Your task to perform on an android device: turn on bluetooth scan Image 0: 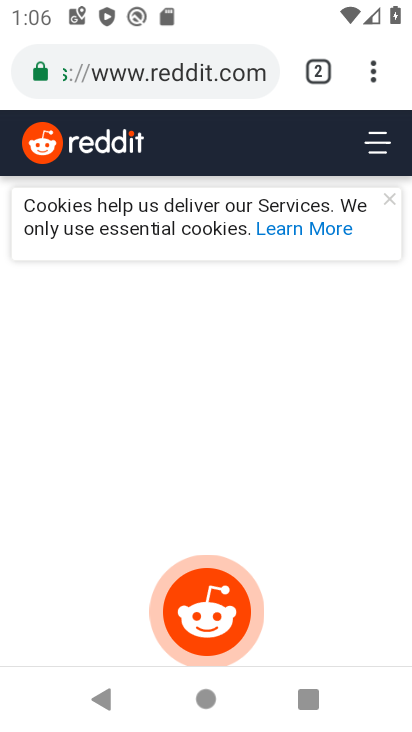
Step 0: press home button
Your task to perform on an android device: turn on bluetooth scan Image 1: 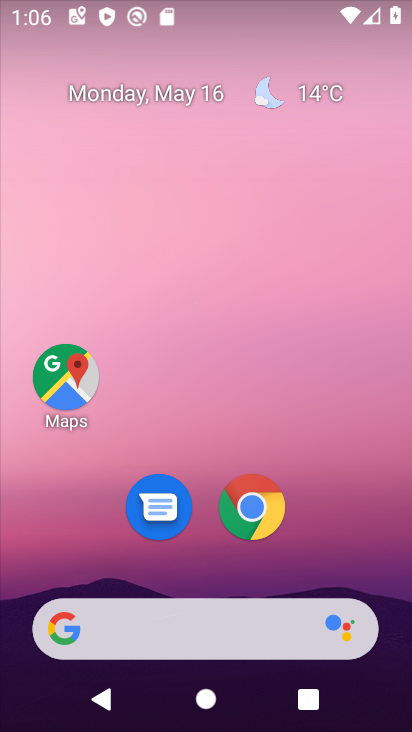
Step 1: drag from (9, 657) to (189, 215)
Your task to perform on an android device: turn on bluetooth scan Image 2: 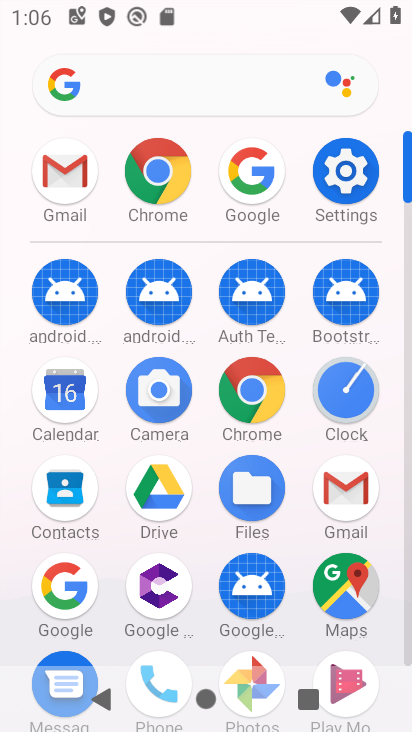
Step 2: click (357, 186)
Your task to perform on an android device: turn on bluetooth scan Image 3: 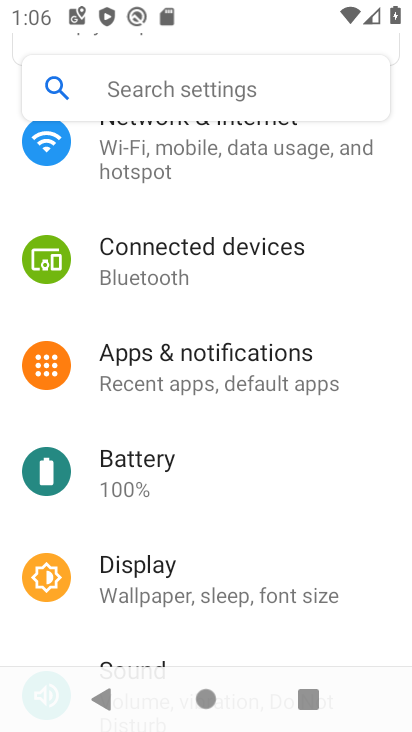
Step 3: drag from (110, 607) to (353, 88)
Your task to perform on an android device: turn on bluetooth scan Image 4: 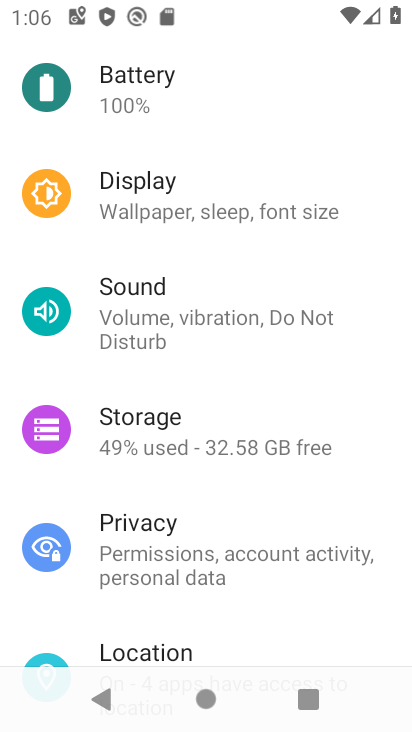
Step 4: drag from (233, 654) to (297, 309)
Your task to perform on an android device: turn on bluetooth scan Image 5: 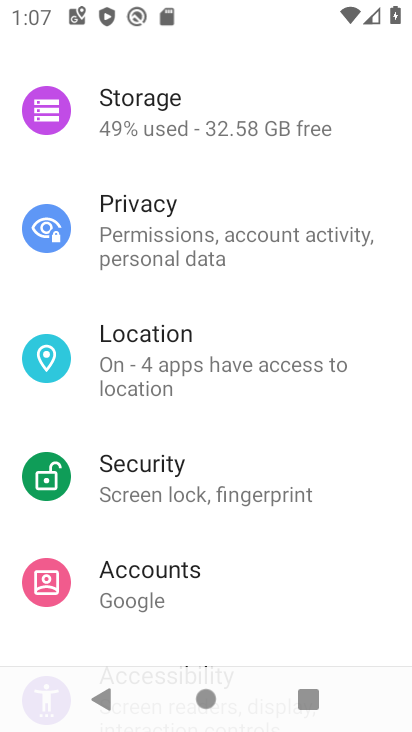
Step 5: click (155, 360)
Your task to perform on an android device: turn on bluetooth scan Image 6: 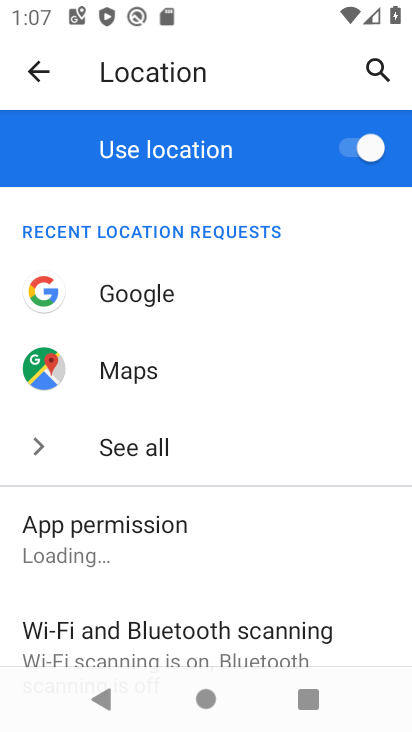
Step 6: click (117, 648)
Your task to perform on an android device: turn on bluetooth scan Image 7: 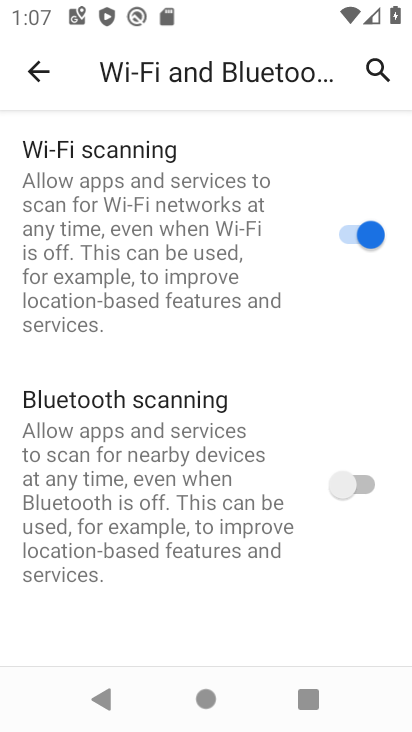
Step 7: click (353, 489)
Your task to perform on an android device: turn on bluetooth scan Image 8: 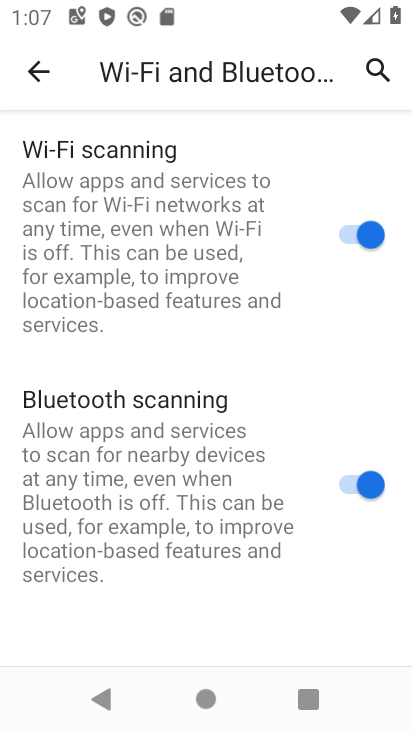
Step 8: task complete